Your task to perform on an android device: turn on wifi Image 0: 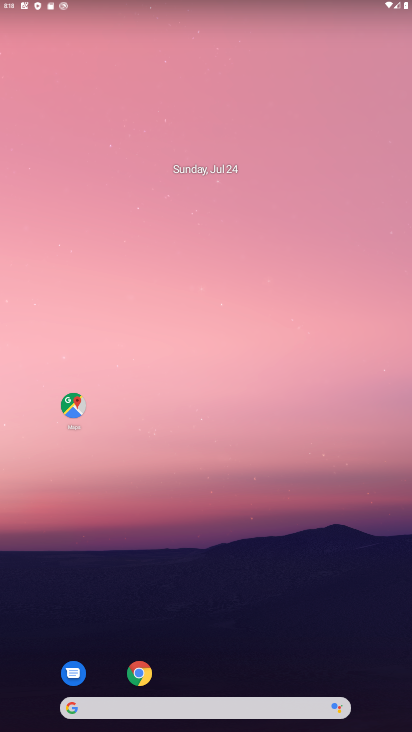
Step 0: drag from (207, 650) to (148, 57)
Your task to perform on an android device: turn on wifi Image 1: 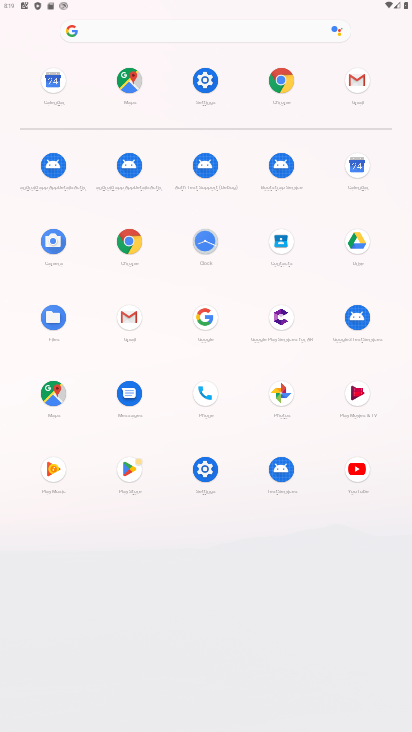
Step 1: click (208, 81)
Your task to perform on an android device: turn on wifi Image 2: 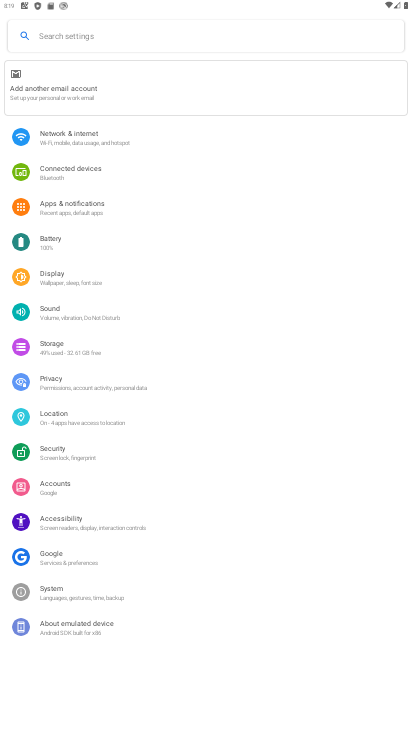
Step 2: click (178, 144)
Your task to perform on an android device: turn on wifi Image 3: 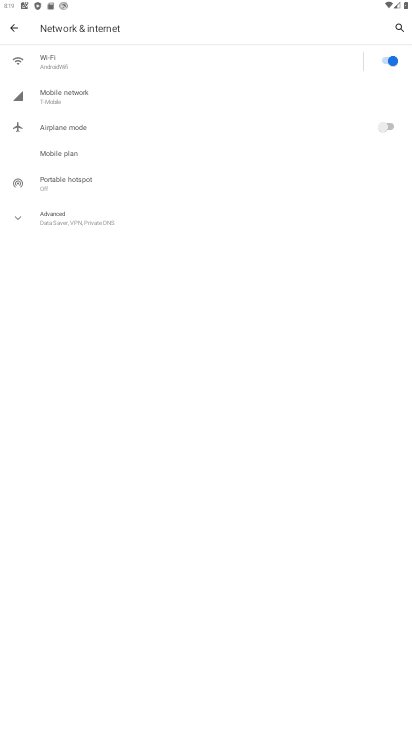
Step 3: task complete